Your task to perform on an android device: delete a single message in the gmail app Image 0: 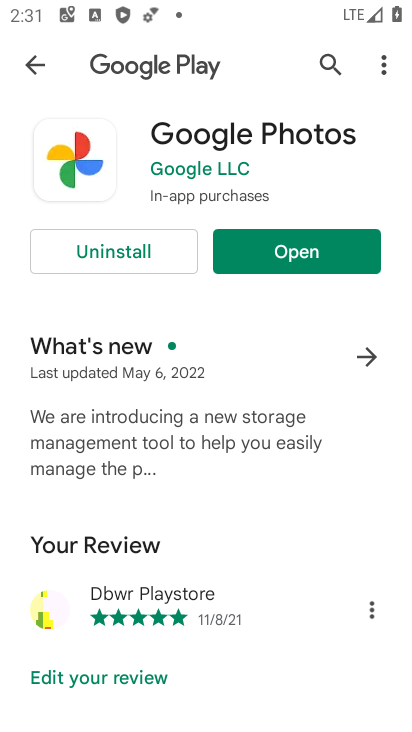
Step 0: drag from (244, 548) to (260, 222)
Your task to perform on an android device: delete a single message in the gmail app Image 1: 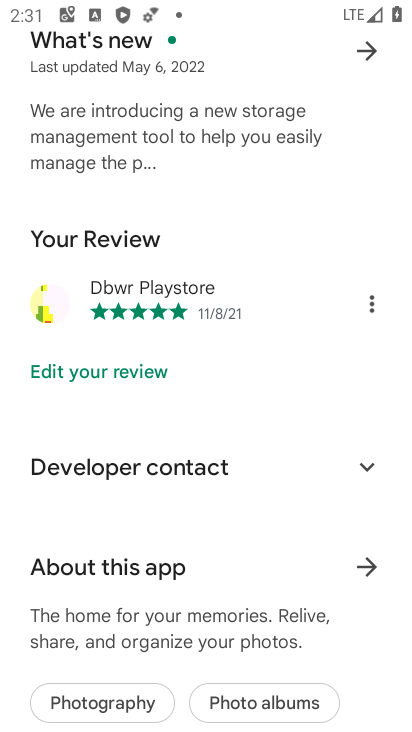
Step 1: drag from (221, 279) to (285, 689)
Your task to perform on an android device: delete a single message in the gmail app Image 2: 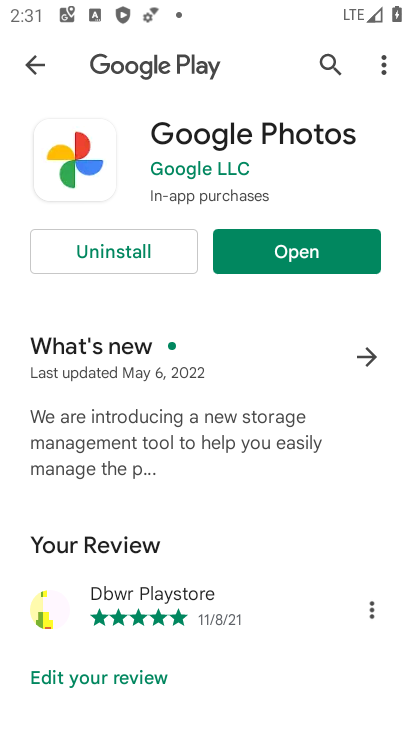
Step 2: press home button
Your task to perform on an android device: delete a single message in the gmail app Image 3: 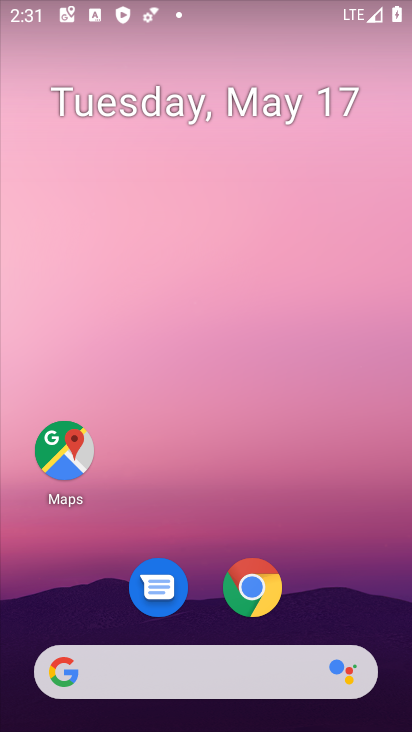
Step 3: drag from (207, 631) to (238, 226)
Your task to perform on an android device: delete a single message in the gmail app Image 4: 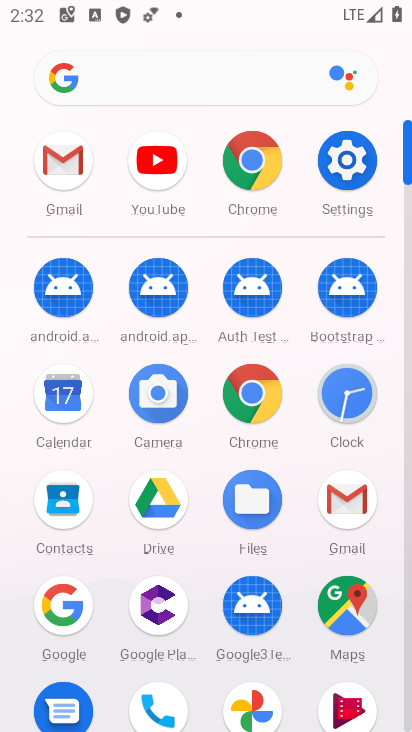
Step 4: click (338, 501)
Your task to perform on an android device: delete a single message in the gmail app Image 5: 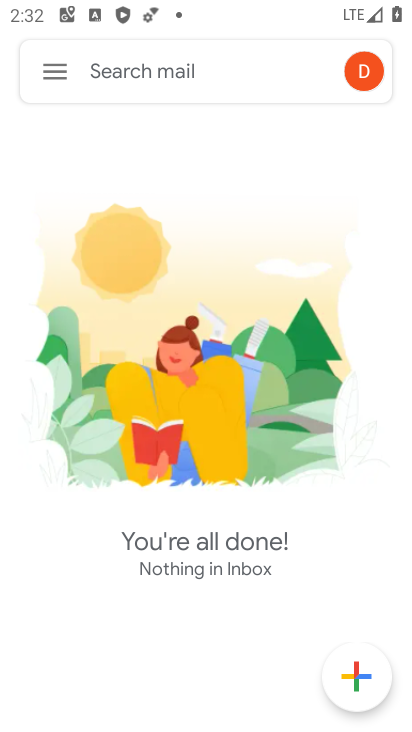
Step 5: task complete